Your task to perform on an android device: Search for Mexican restaurants on Maps Image 0: 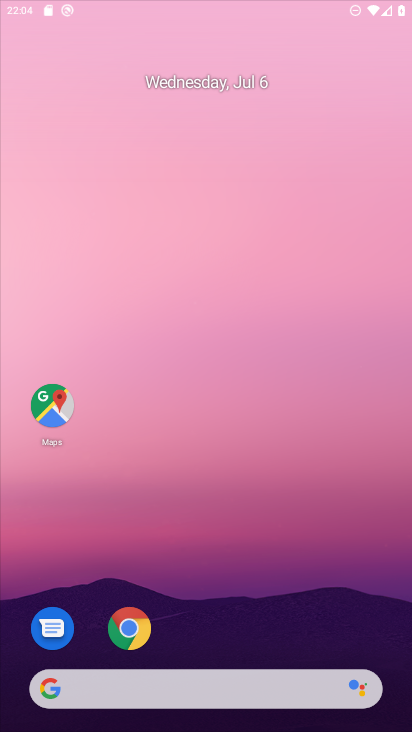
Step 0: press home button
Your task to perform on an android device: Search for Mexican restaurants on Maps Image 1: 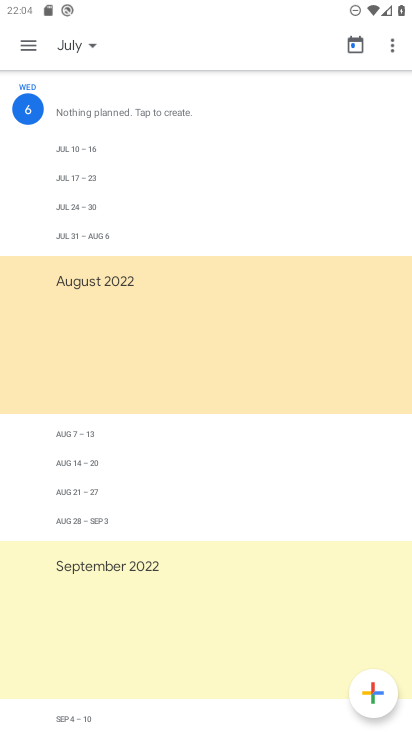
Step 1: drag from (272, 618) to (268, 67)
Your task to perform on an android device: Search for Mexican restaurants on Maps Image 2: 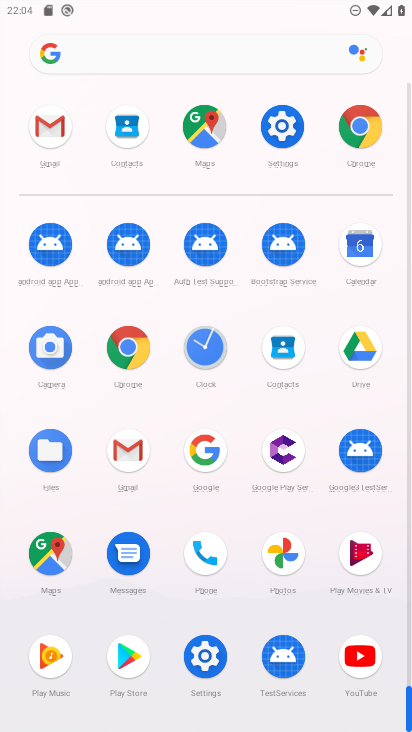
Step 2: click (57, 145)
Your task to perform on an android device: Search for Mexican restaurants on Maps Image 3: 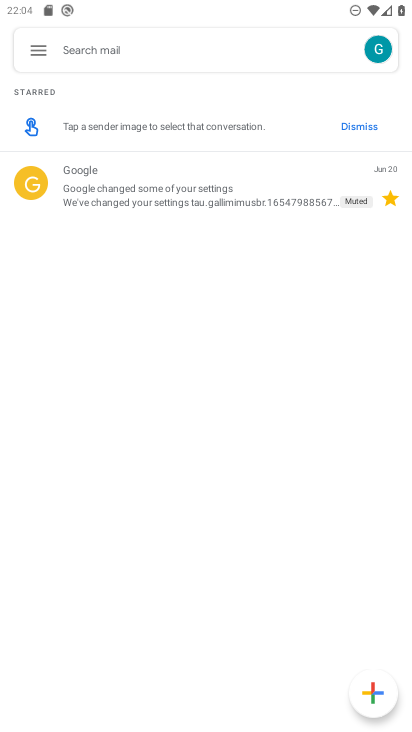
Step 3: press home button
Your task to perform on an android device: Search for Mexican restaurants on Maps Image 4: 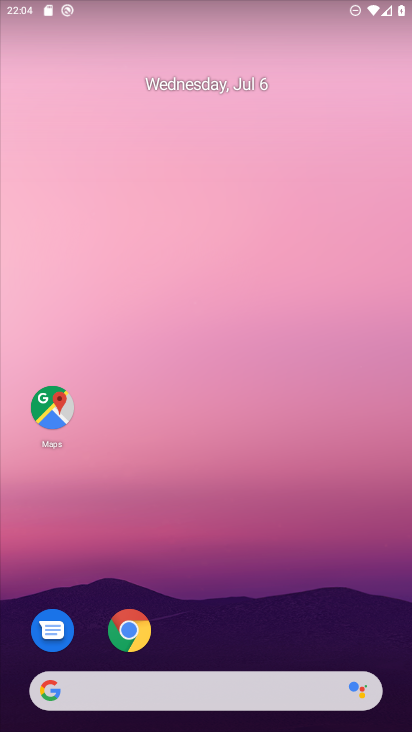
Step 4: click (54, 405)
Your task to perform on an android device: Search for Mexican restaurants on Maps Image 5: 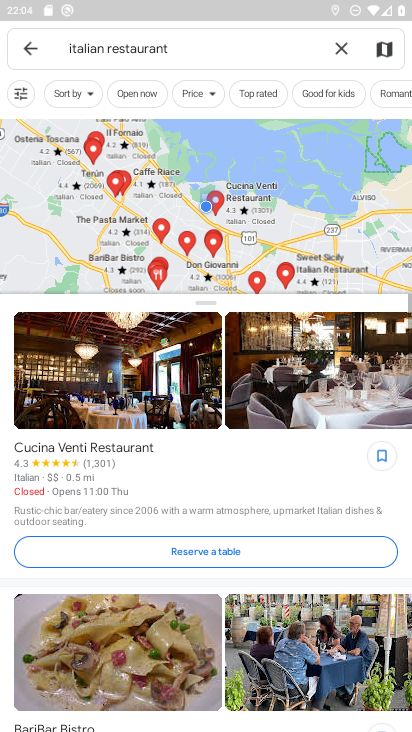
Step 5: click (339, 48)
Your task to perform on an android device: Search for Mexican restaurants on Maps Image 6: 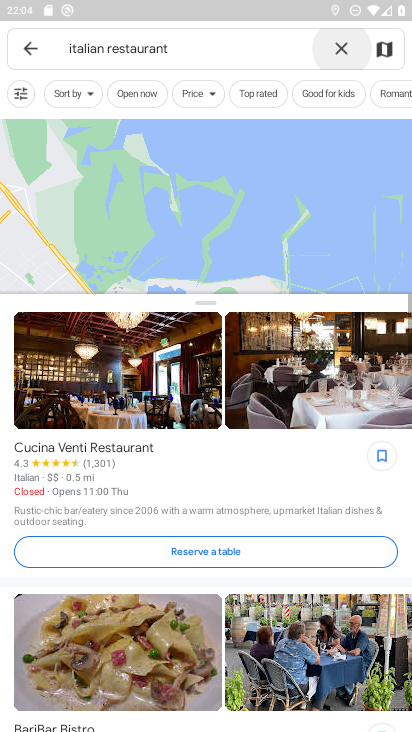
Step 6: click (304, 47)
Your task to perform on an android device: Search for Mexican restaurants on Maps Image 7: 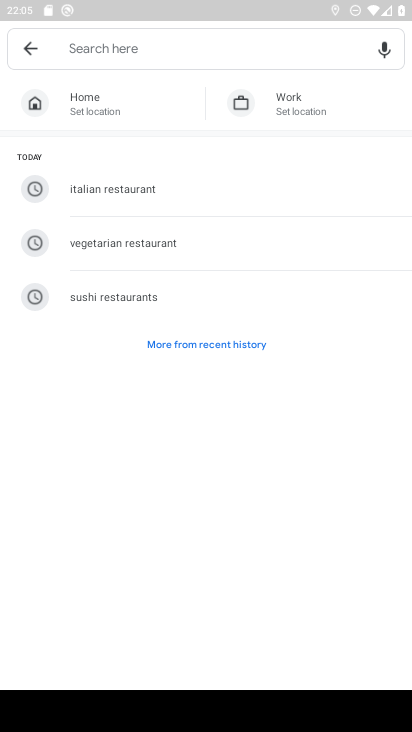
Step 7: type "Mexican restaurants"
Your task to perform on an android device: Search for Mexican restaurants on Maps Image 8: 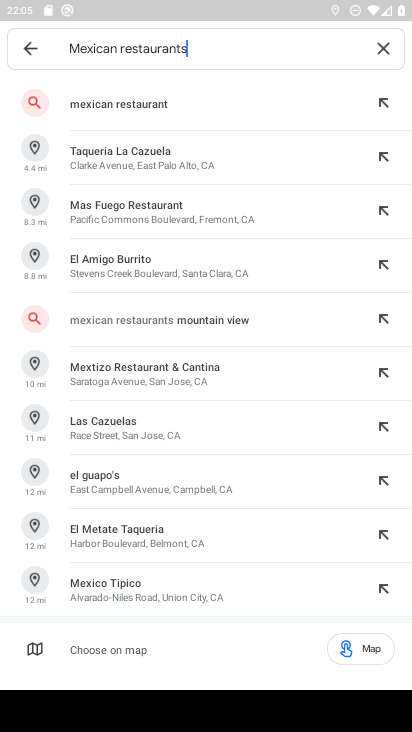
Step 8: click (272, 105)
Your task to perform on an android device: Search for Mexican restaurants on Maps Image 9: 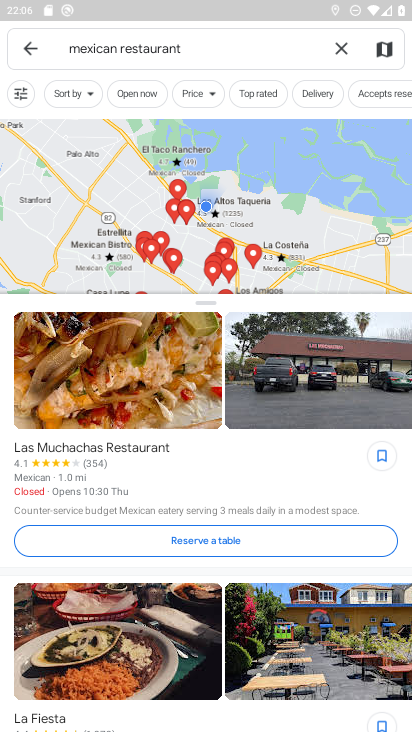
Step 9: task complete